Your task to perform on an android device: turn off priority inbox in the gmail app Image 0: 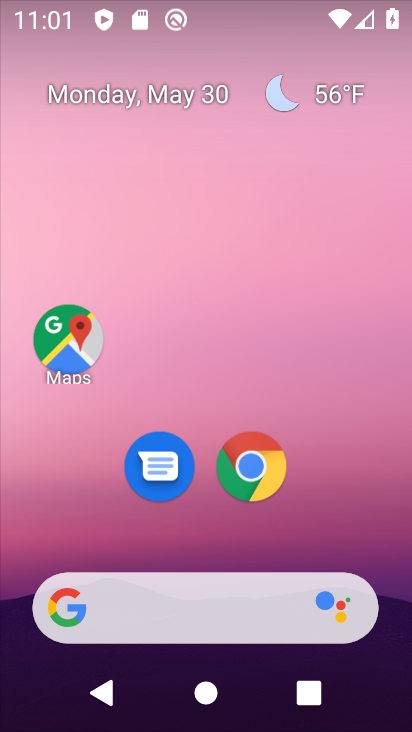
Step 0: drag from (369, 519) to (323, 71)
Your task to perform on an android device: turn off priority inbox in the gmail app Image 1: 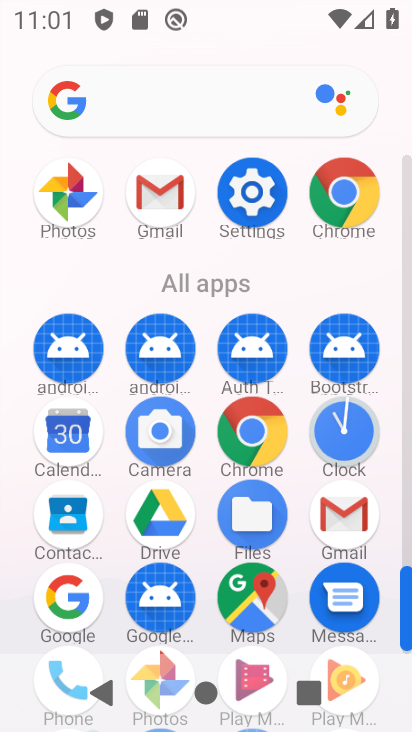
Step 1: click (338, 520)
Your task to perform on an android device: turn off priority inbox in the gmail app Image 2: 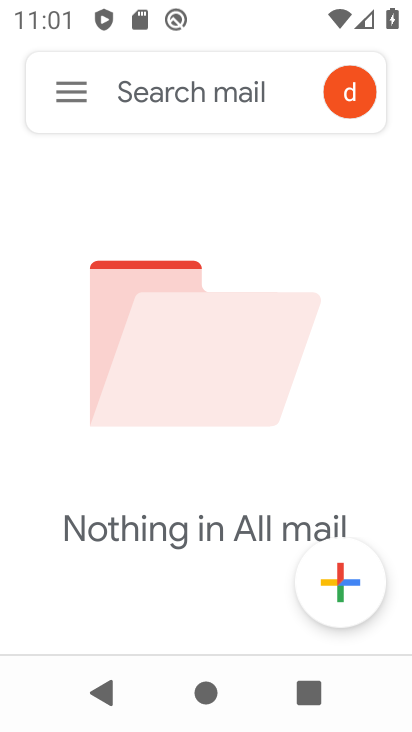
Step 2: click (66, 106)
Your task to perform on an android device: turn off priority inbox in the gmail app Image 3: 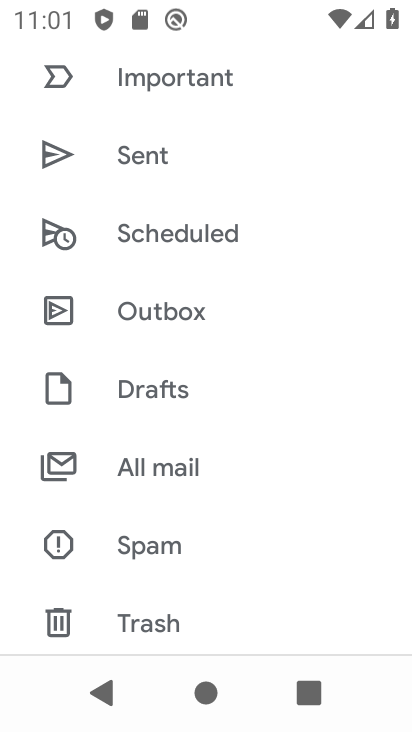
Step 3: drag from (249, 582) to (228, 190)
Your task to perform on an android device: turn off priority inbox in the gmail app Image 4: 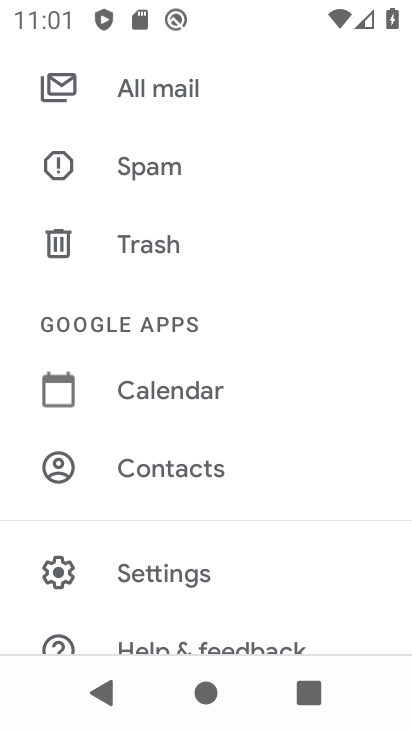
Step 4: click (202, 574)
Your task to perform on an android device: turn off priority inbox in the gmail app Image 5: 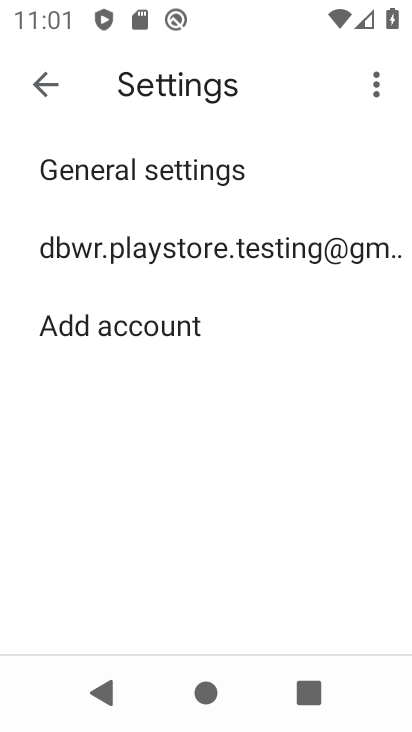
Step 5: click (193, 251)
Your task to perform on an android device: turn off priority inbox in the gmail app Image 6: 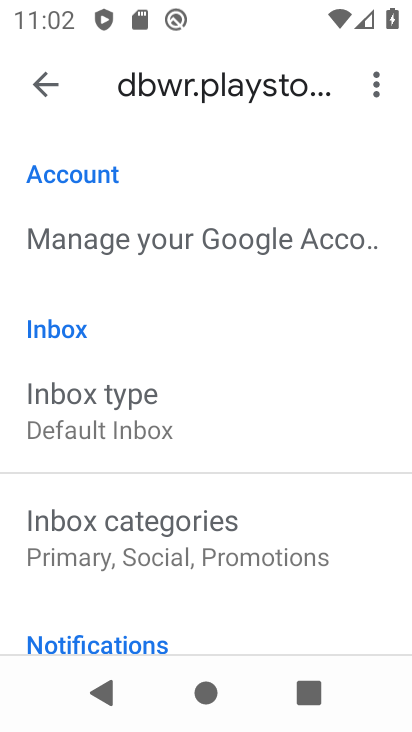
Step 6: click (190, 416)
Your task to perform on an android device: turn off priority inbox in the gmail app Image 7: 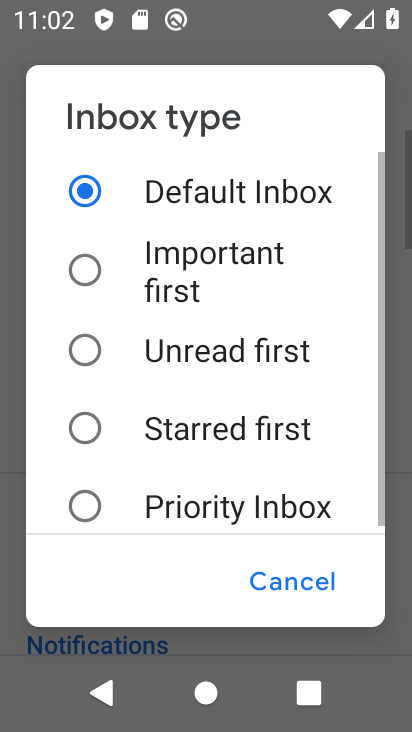
Step 7: task complete